Your task to perform on an android device: turn off priority inbox in the gmail app Image 0: 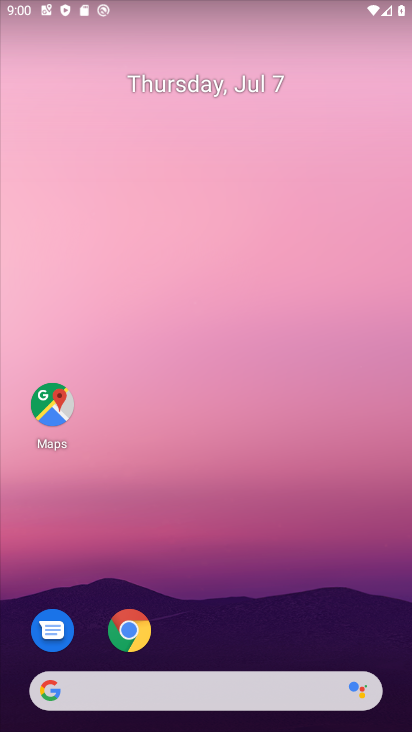
Step 0: drag from (253, 587) to (246, 36)
Your task to perform on an android device: turn off priority inbox in the gmail app Image 1: 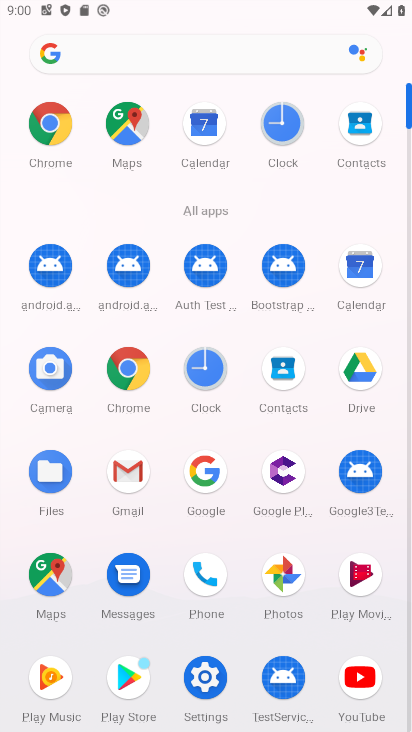
Step 1: click (125, 458)
Your task to perform on an android device: turn off priority inbox in the gmail app Image 2: 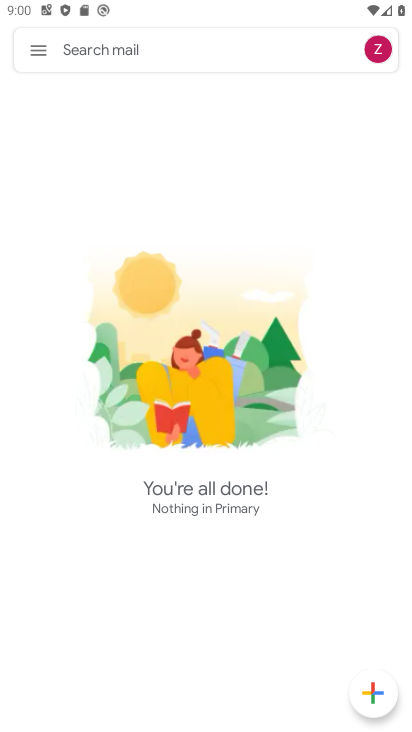
Step 2: click (41, 46)
Your task to perform on an android device: turn off priority inbox in the gmail app Image 3: 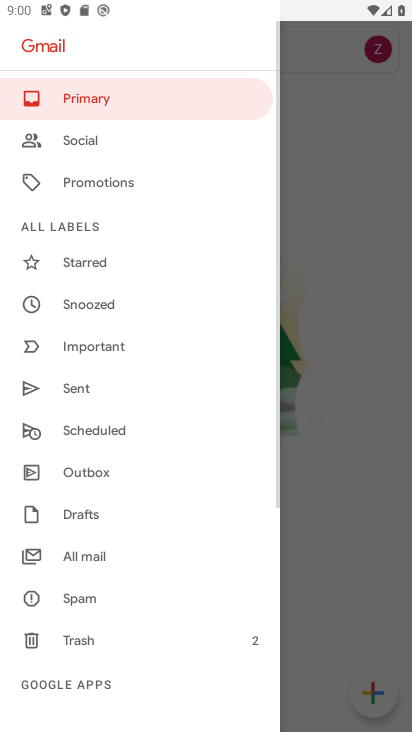
Step 3: drag from (116, 594) to (129, 268)
Your task to perform on an android device: turn off priority inbox in the gmail app Image 4: 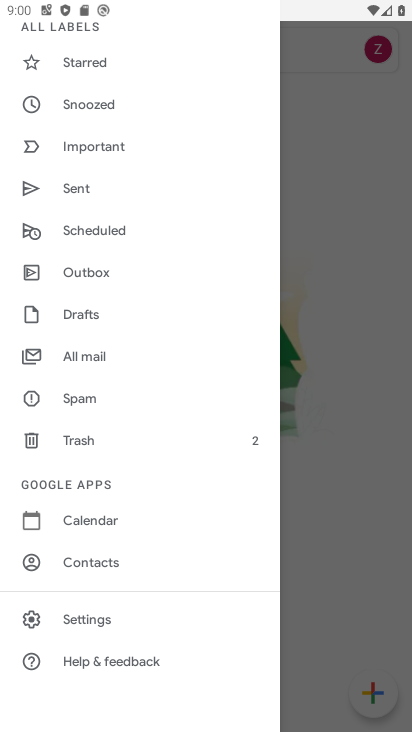
Step 4: click (93, 623)
Your task to perform on an android device: turn off priority inbox in the gmail app Image 5: 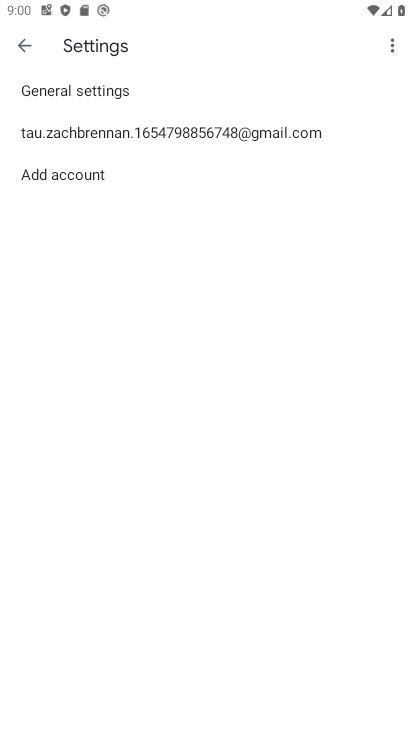
Step 5: click (161, 140)
Your task to perform on an android device: turn off priority inbox in the gmail app Image 6: 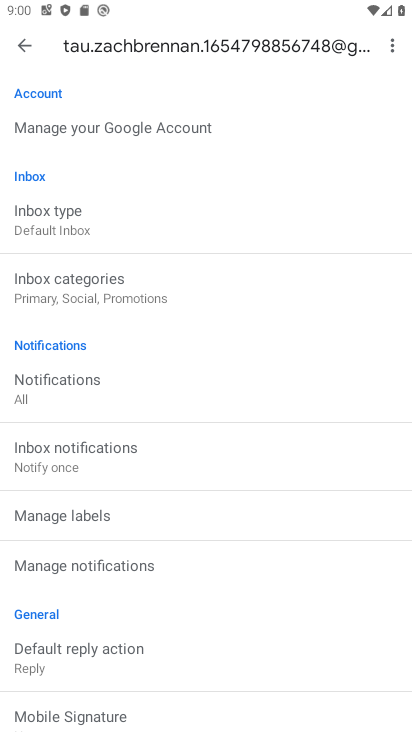
Step 6: click (30, 224)
Your task to perform on an android device: turn off priority inbox in the gmail app Image 7: 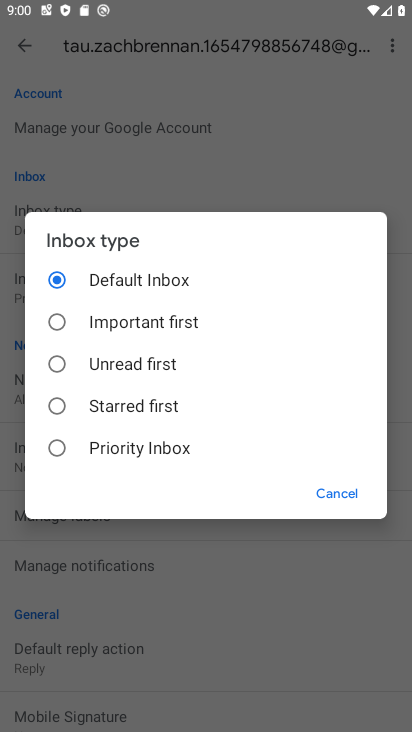
Step 7: click (139, 441)
Your task to perform on an android device: turn off priority inbox in the gmail app Image 8: 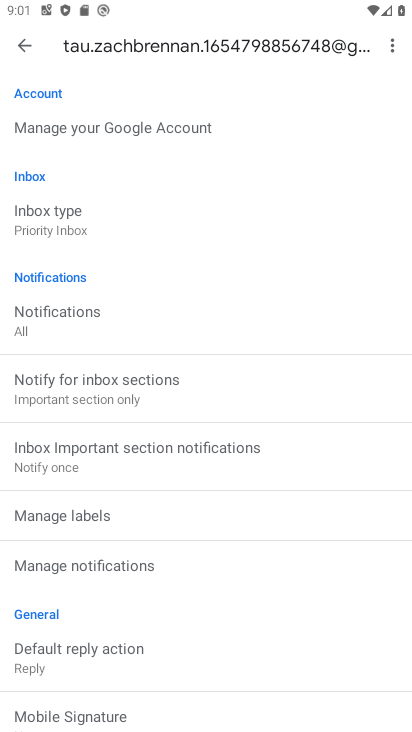
Step 8: task complete